Your task to perform on an android device: open device folders in google photos Image 0: 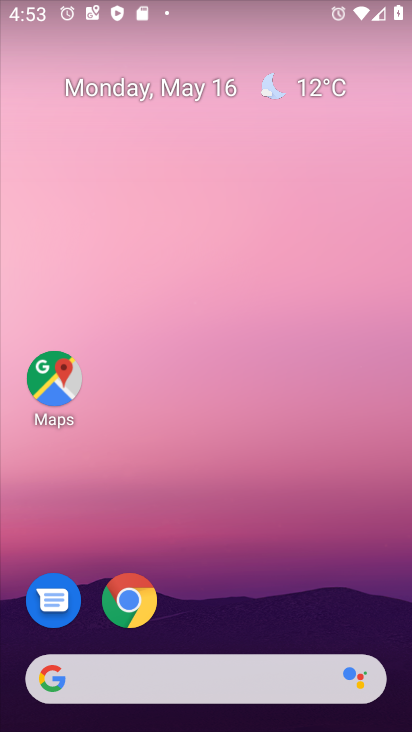
Step 0: drag from (213, 657) to (197, 247)
Your task to perform on an android device: open device folders in google photos Image 1: 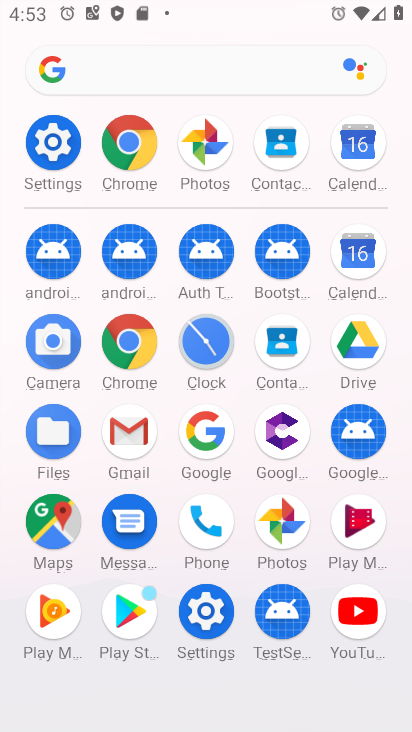
Step 1: click (196, 144)
Your task to perform on an android device: open device folders in google photos Image 2: 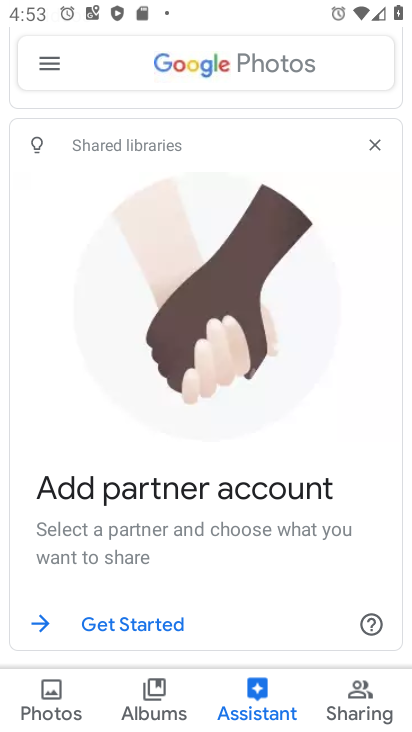
Step 2: click (46, 67)
Your task to perform on an android device: open device folders in google photos Image 3: 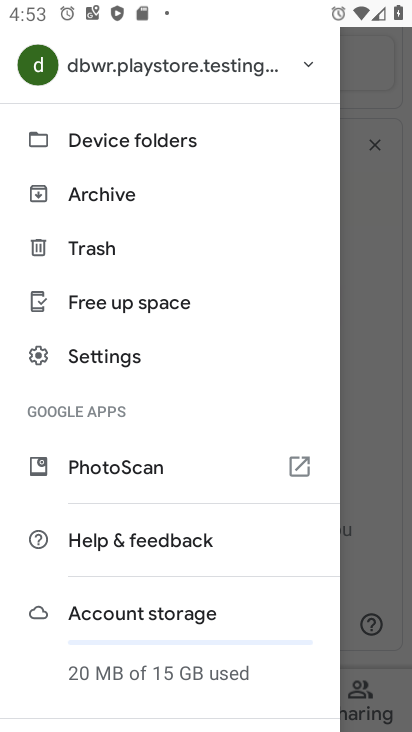
Step 3: click (115, 145)
Your task to perform on an android device: open device folders in google photos Image 4: 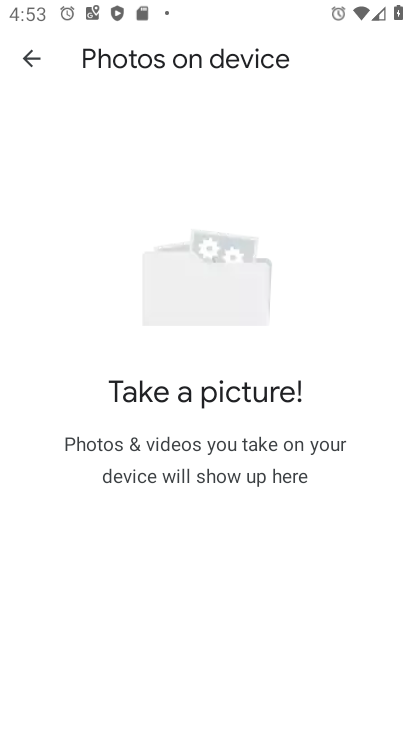
Step 4: task complete